Your task to perform on an android device: Go to Android settings Image 0: 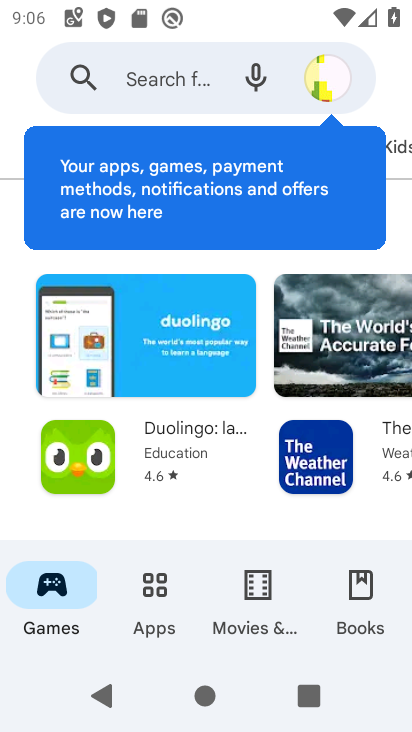
Step 0: press home button
Your task to perform on an android device: Go to Android settings Image 1: 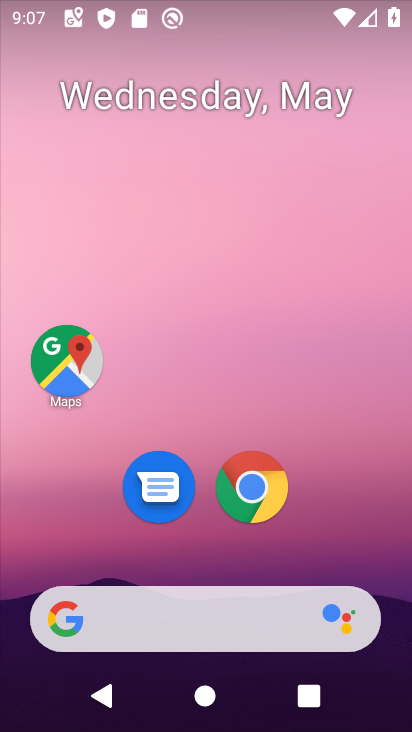
Step 1: drag from (345, 525) to (232, 137)
Your task to perform on an android device: Go to Android settings Image 2: 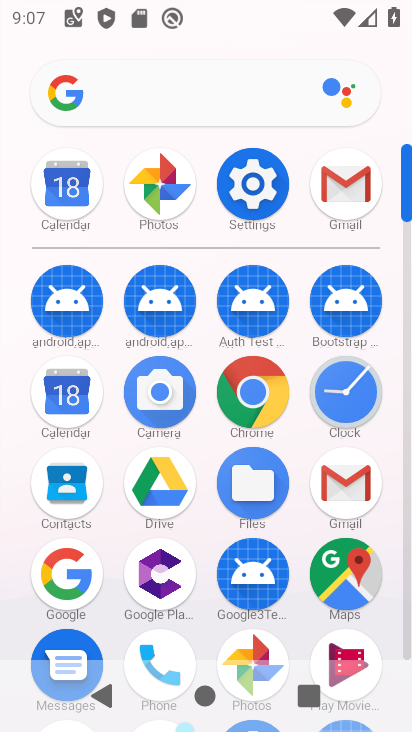
Step 2: click (255, 177)
Your task to perform on an android device: Go to Android settings Image 3: 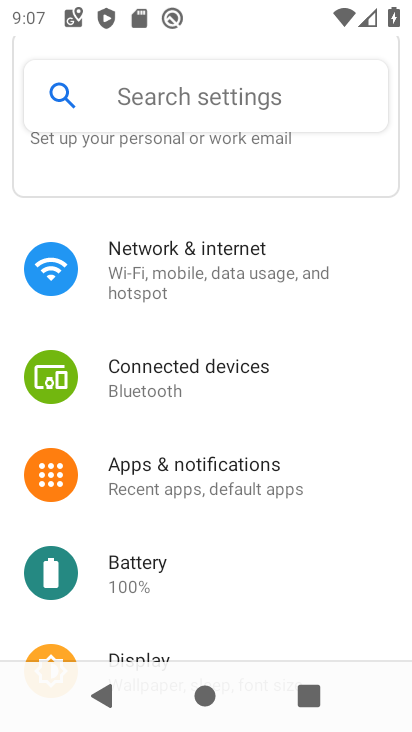
Step 3: task complete